Your task to perform on an android device: Go to CNN.com Image 0: 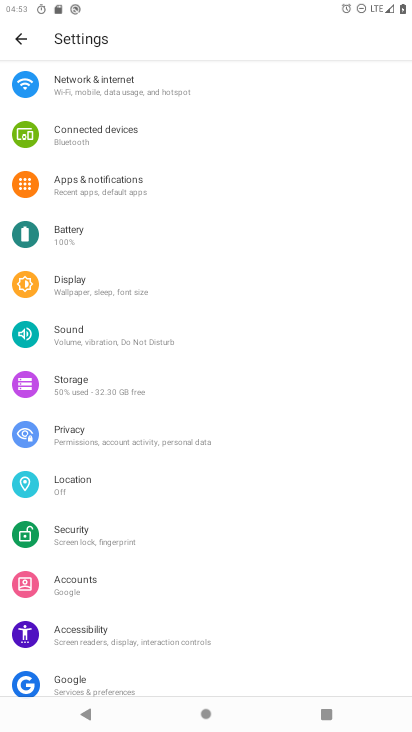
Step 0: press home button
Your task to perform on an android device: Go to CNN.com Image 1: 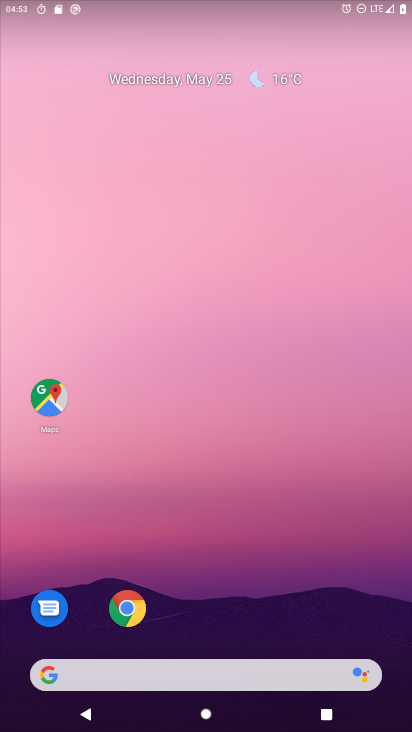
Step 1: click (131, 614)
Your task to perform on an android device: Go to CNN.com Image 2: 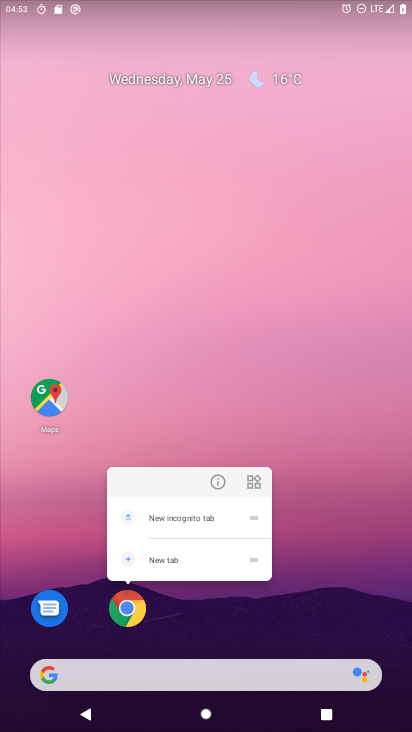
Step 2: click (132, 615)
Your task to perform on an android device: Go to CNN.com Image 3: 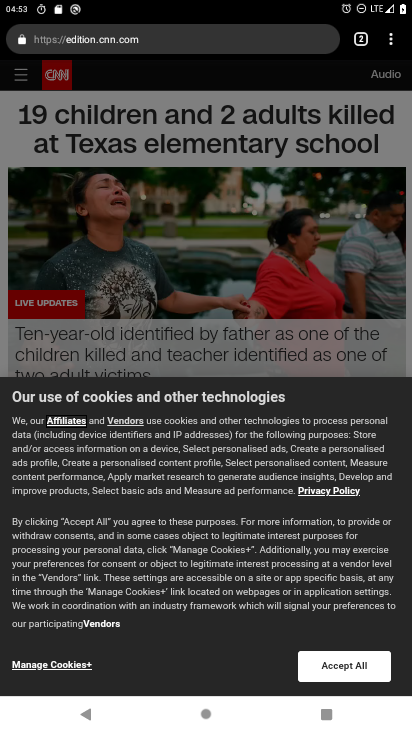
Step 3: task complete